Your task to perform on an android device: check battery use Image 0: 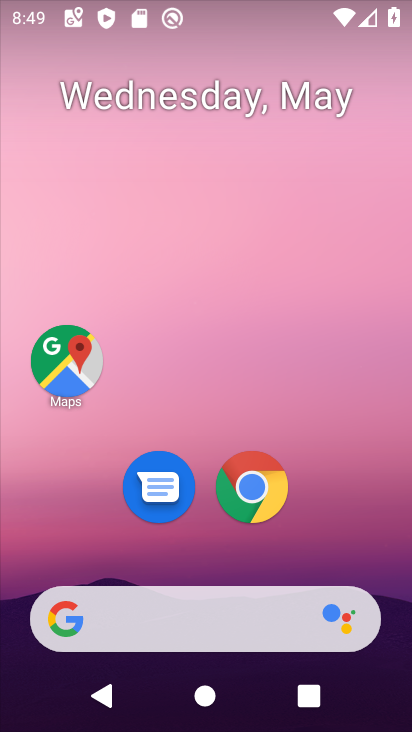
Step 0: drag from (351, 531) to (212, 76)
Your task to perform on an android device: check battery use Image 1: 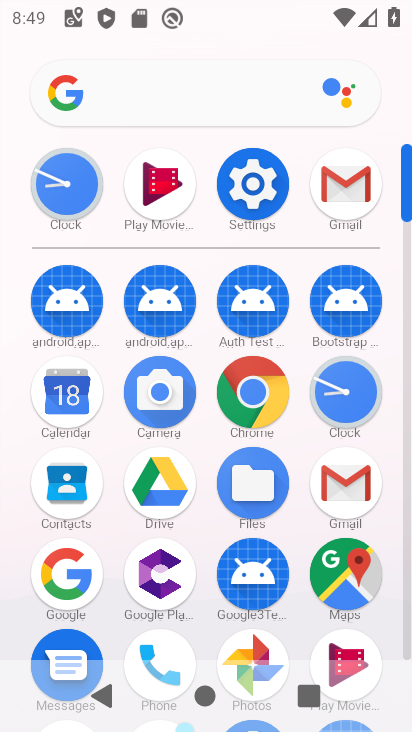
Step 1: click (253, 190)
Your task to perform on an android device: check battery use Image 2: 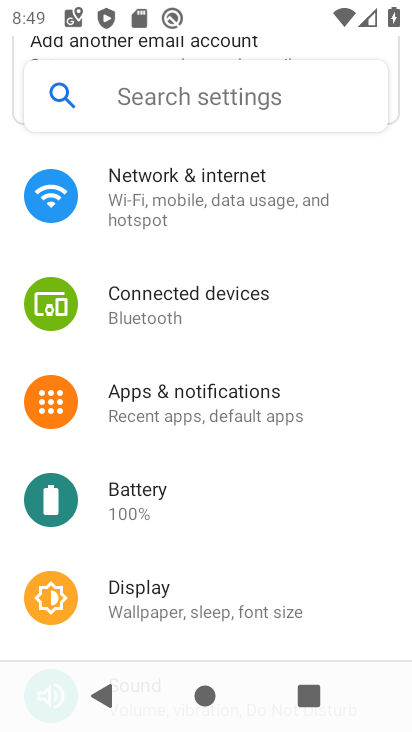
Step 2: click (125, 493)
Your task to perform on an android device: check battery use Image 3: 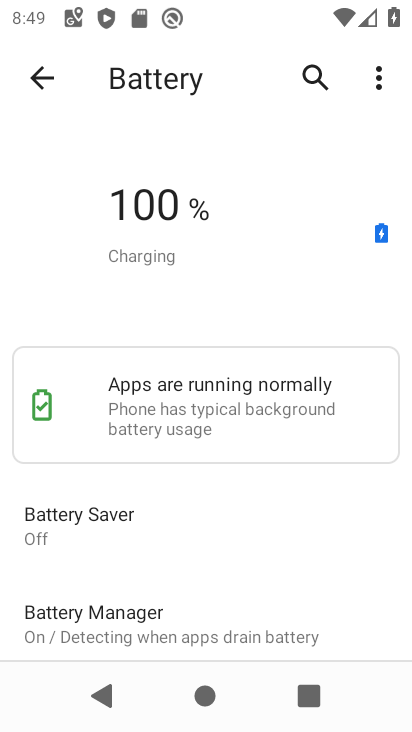
Step 3: task complete